Your task to perform on an android device: Search for usb-b on walmart.com, select the first entry, and add it to the cart. Image 0: 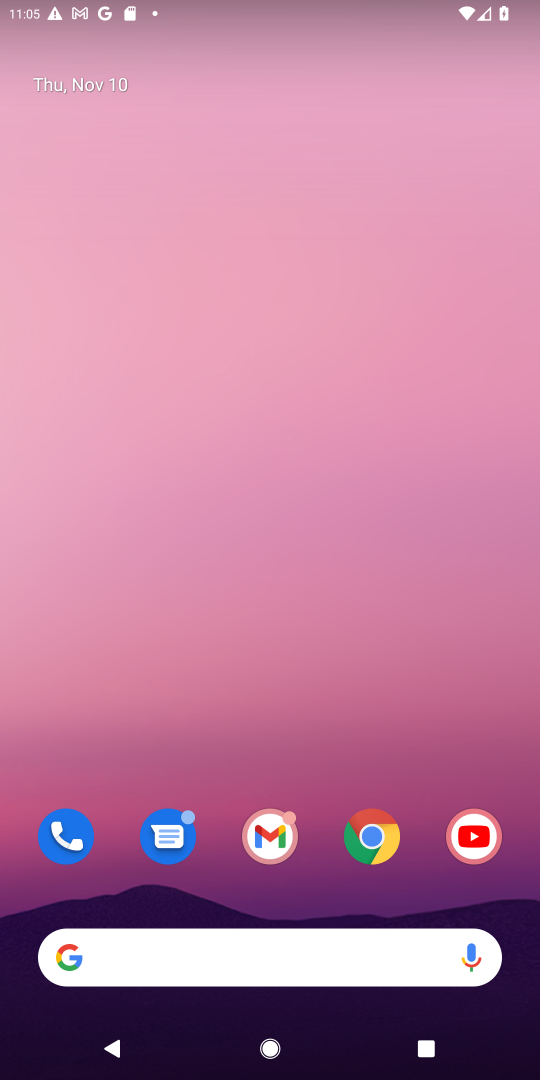
Step 0: click (226, 949)
Your task to perform on an android device: Search for usb-b on walmart.com, select the first entry, and add it to the cart. Image 1: 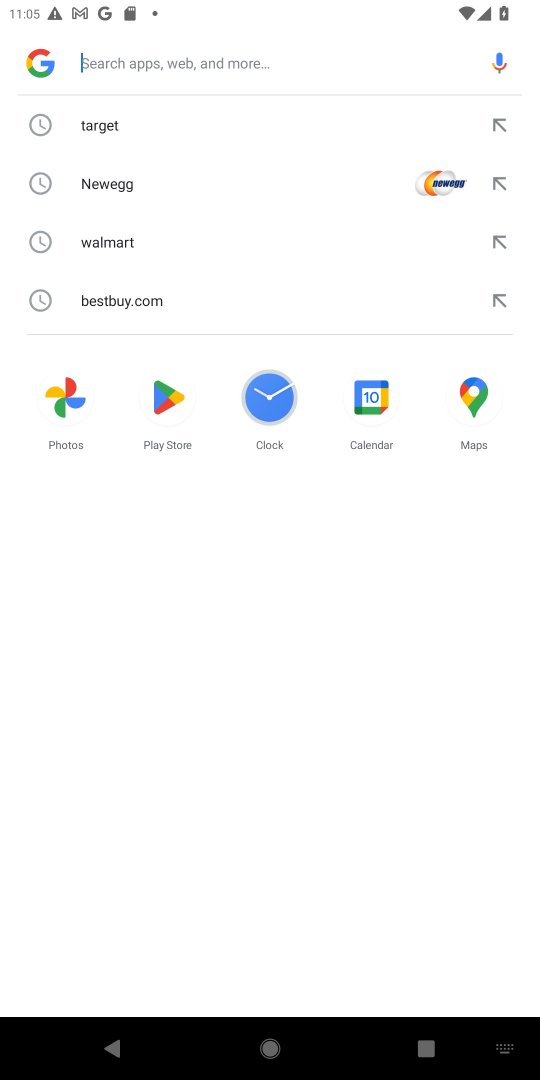
Step 1: type "walmart.com,"
Your task to perform on an android device: Search for usb-b on walmart.com, select the first entry, and add it to the cart. Image 2: 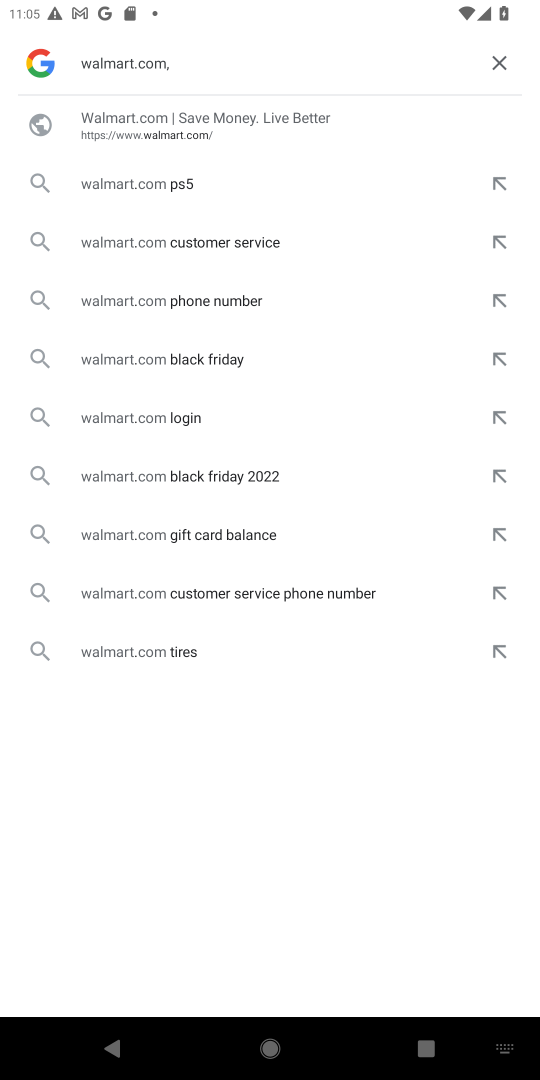
Step 2: click (203, 113)
Your task to perform on an android device: Search for usb-b on walmart.com, select the first entry, and add it to the cart. Image 3: 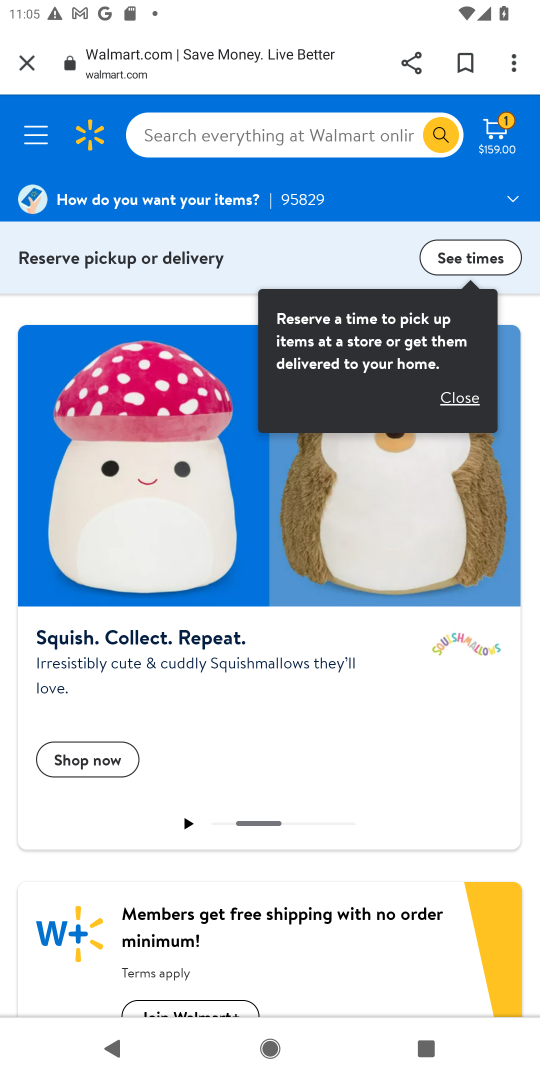
Step 3: click (212, 141)
Your task to perform on an android device: Search for usb-b on walmart.com, select the first entry, and add it to the cart. Image 4: 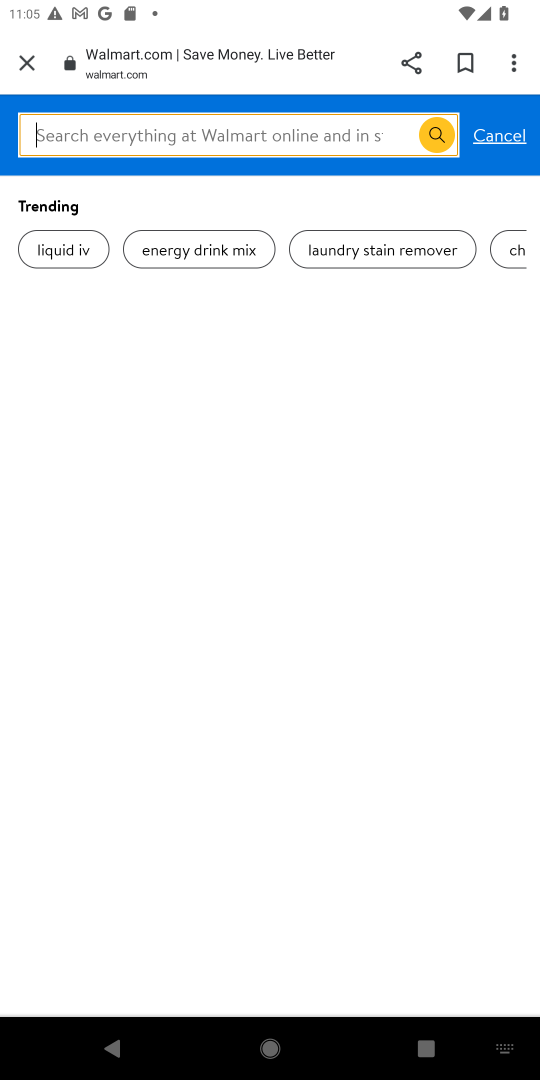
Step 4: type "usb-b "
Your task to perform on an android device: Search for usb-b on walmart.com, select the first entry, and add it to the cart. Image 5: 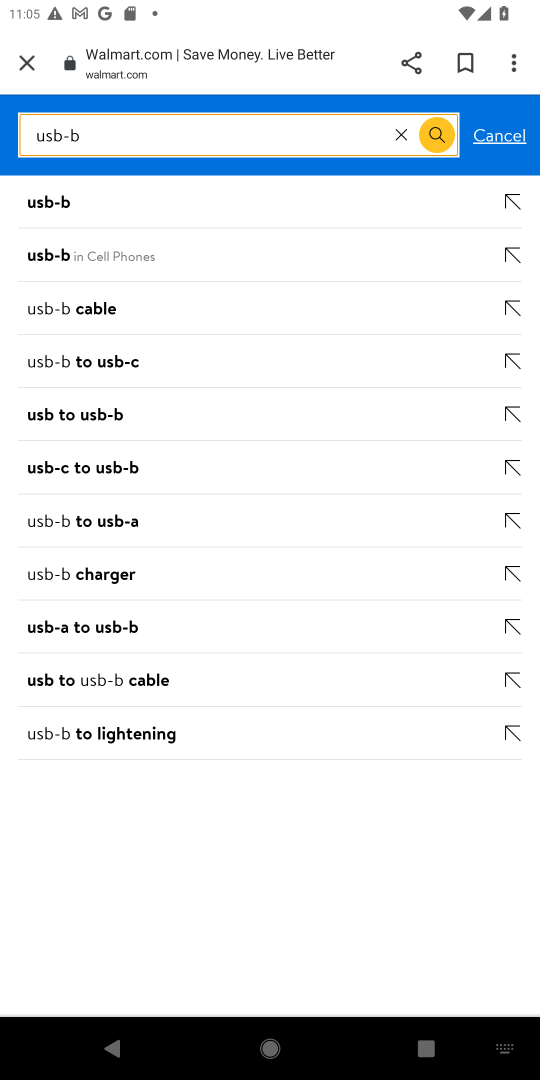
Step 5: click (42, 200)
Your task to perform on an android device: Search for usb-b on walmart.com, select the first entry, and add it to the cart. Image 6: 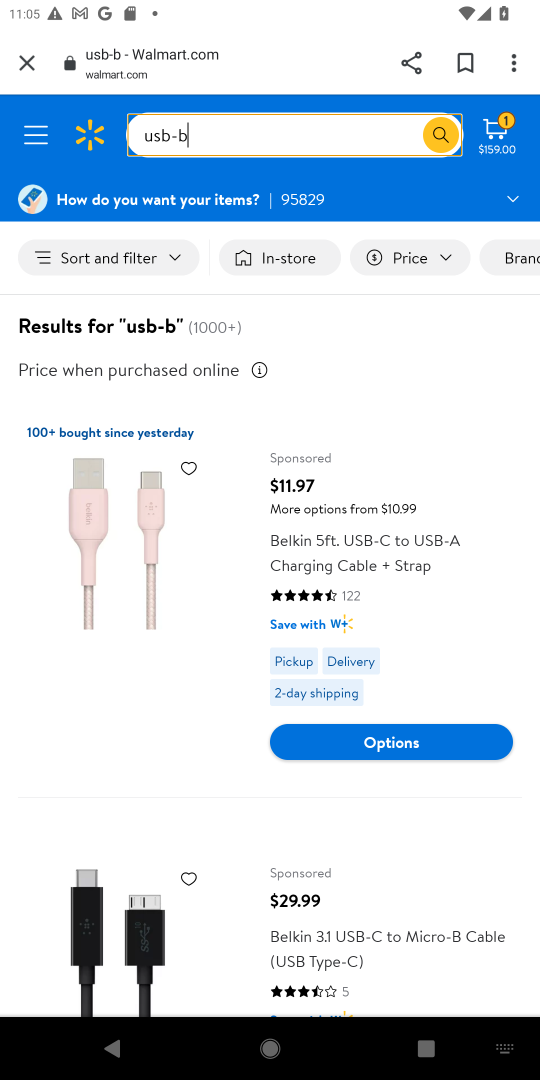
Step 6: click (376, 733)
Your task to perform on an android device: Search for usb-b on walmart.com, select the first entry, and add it to the cart. Image 7: 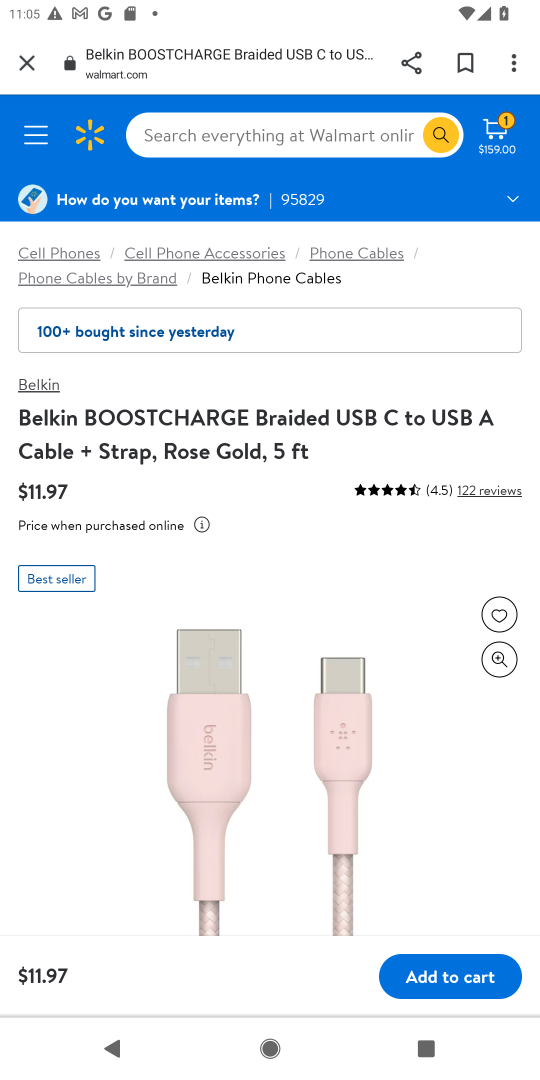
Step 7: click (424, 980)
Your task to perform on an android device: Search for usb-b on walmart.com, select the first entry, and add it to the cart. Image 8: 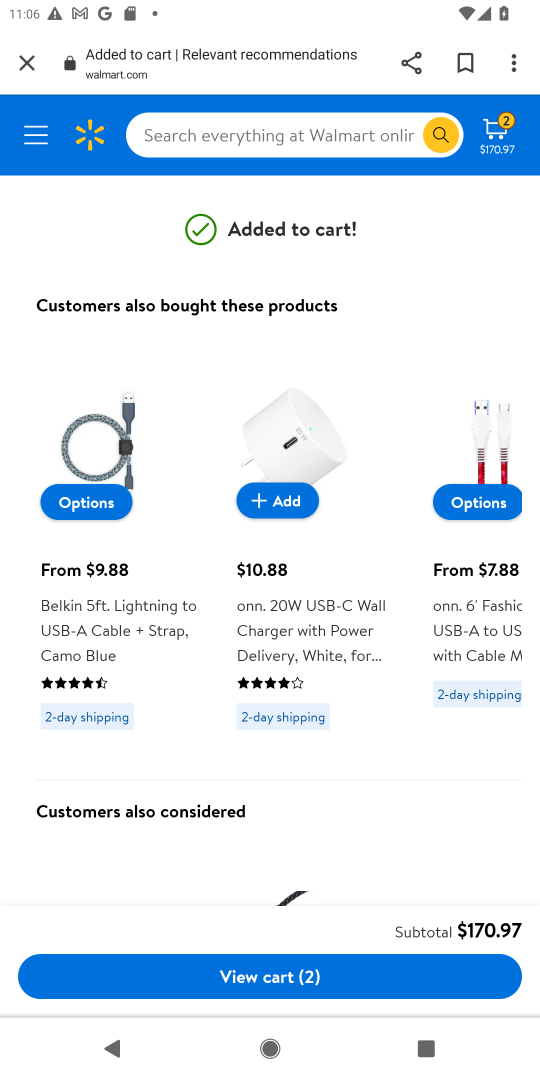
Step 8: task complete